Your task to perform on an android device: turn pop-ups on in chrome Image 0: 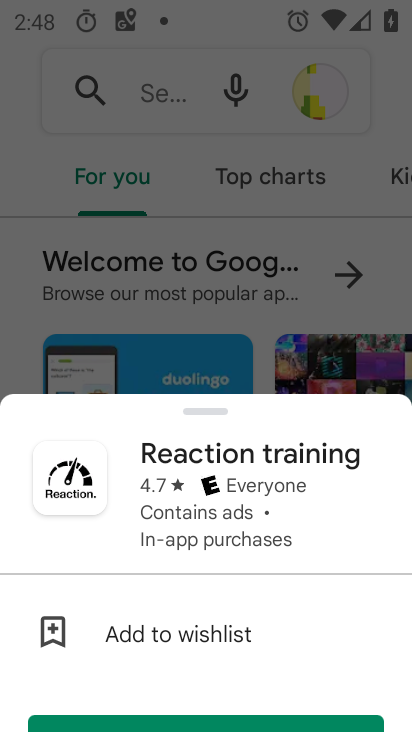
Step 0: press home button
Your task to perform on an android device: turn pop-ups on in chrome Image 1: 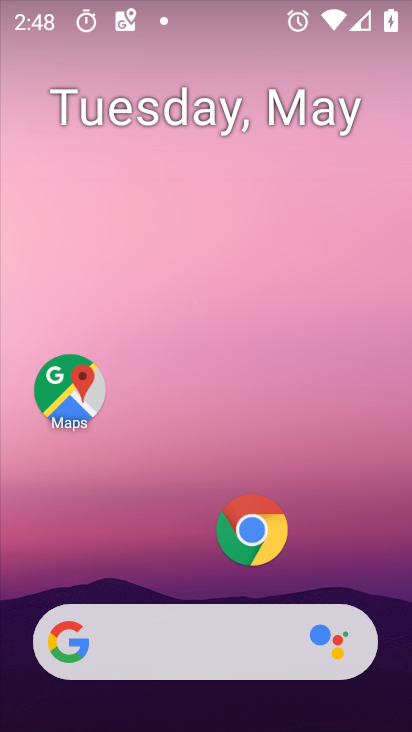
Step 1: drag from (222, 577) to (148, 5)
Your task to perform on an android device: turn pop-ups on in chrome Image 2: 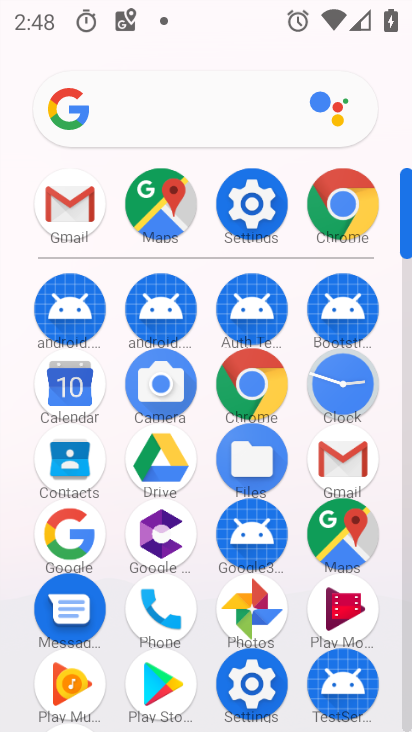
Step 2: click (365, 223)
Your task to perform on an android device: turn pop-ups on in chrome Image 3: 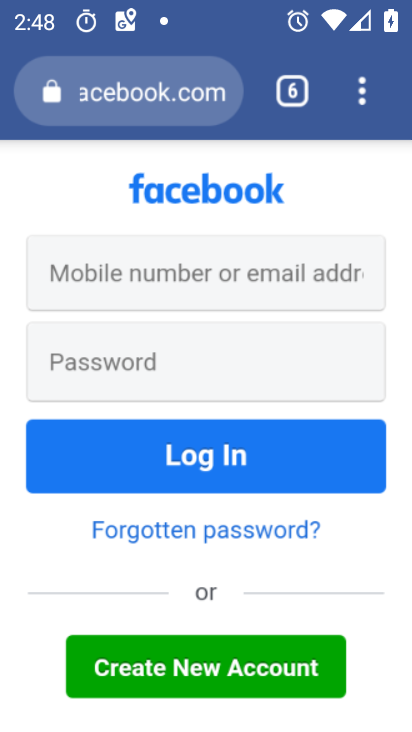
Step 3: click (362, 92)
Your task to perform on an android device: turn pop-ups on in chrome Image 4: 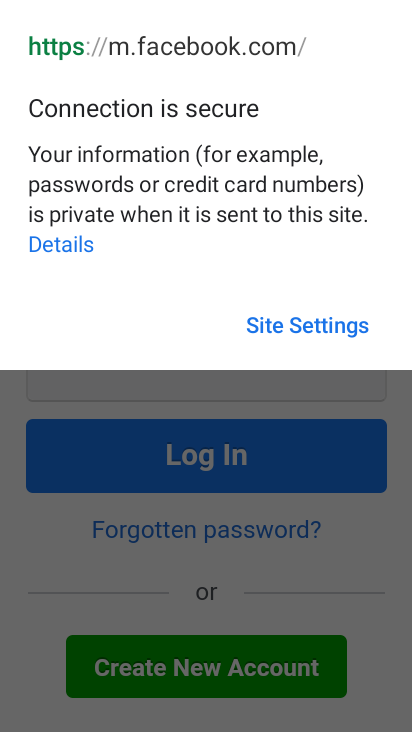
Step 4: click (350, 429)
Your task to perform on an android device: turn pop-ups on in chrome Image 5: 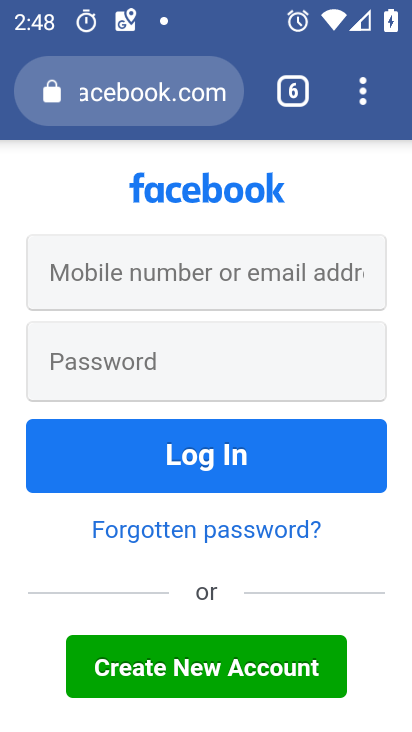
Step 5: click (359, 93)
Your task to perform on an android device: turn pop-ups on in chrome Image 6: 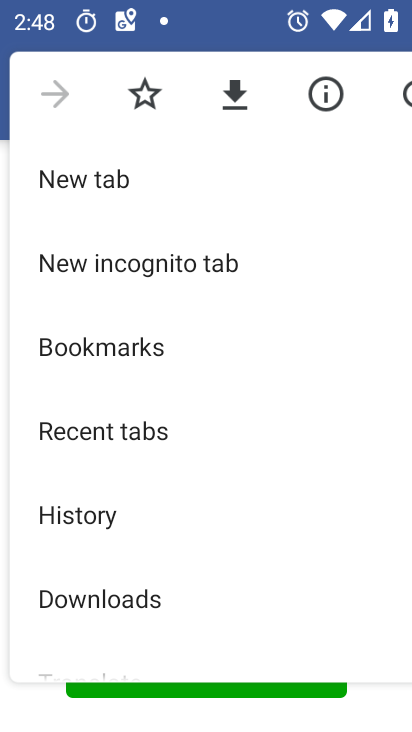
Step 6: drag from (257, 551) to (185, 145)
Your task to perform on an android device: turn pop-ups on in chrome Image 7: 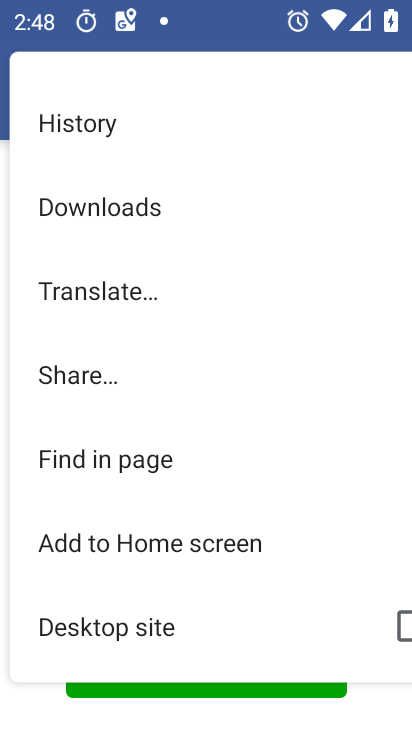
Step 7: drag from (133, 633) to (85, 130)
Your task to perform on an android device: turn pop-ups on in chrome Image 8: 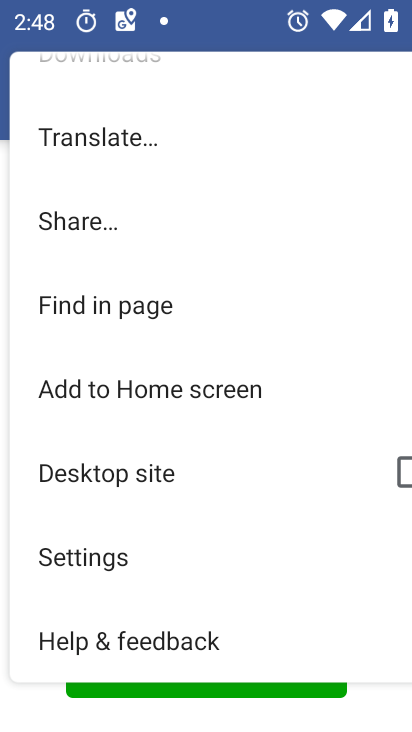
Step 8: click (91, 554)
Your task to perform on an android device: turn pop-ups on in chrome Image 9: 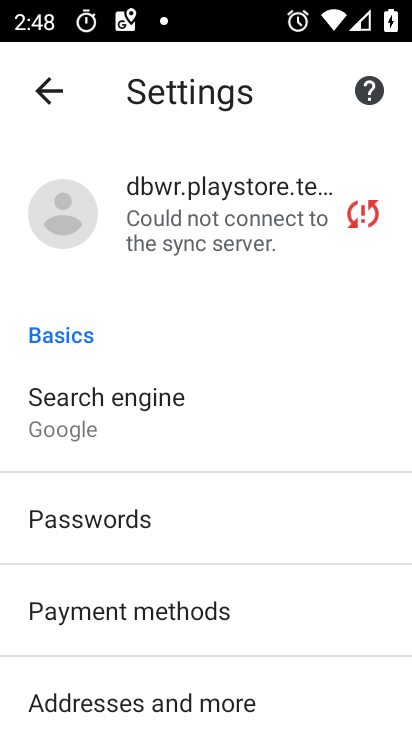
Step 9: drag from (143, 653) to (82, 95)
Your task to perform on an android device: turn pop-ups on in chrome Image 10: 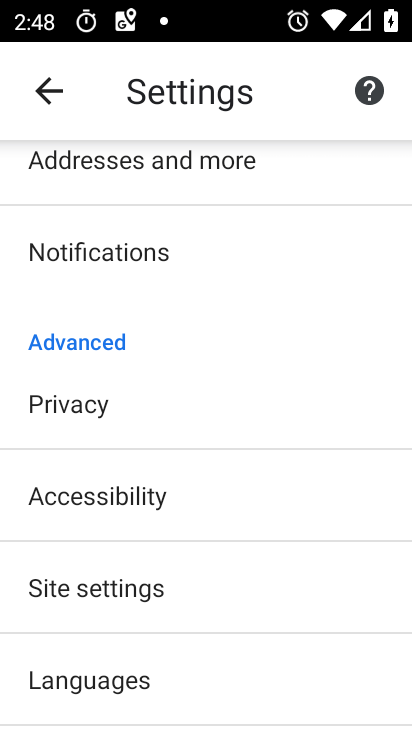
Step 10: click (139, 605)
Your task to perform on an android device: turn pop-ups on in chrome Image 11: 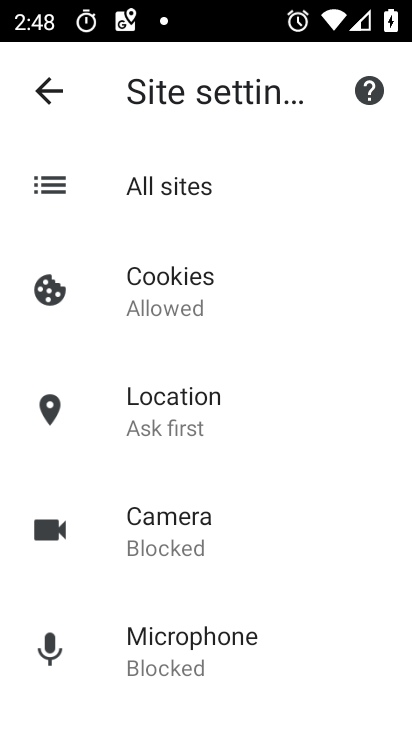
Step 11: drag from (139, 605) to (133, 158)
Your task to perform on an android device: turn pop-ups on in chrome Image 12: 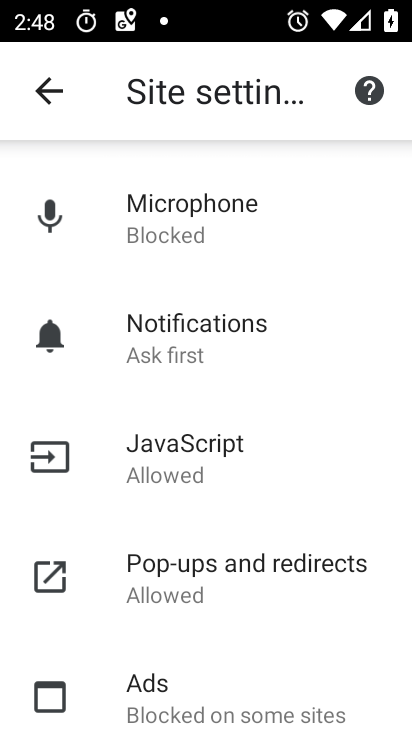
Step 12: drag from (228, 627) to (171, 216)
Your task to perform on an android device: turn pop-ups on in chrome Image 13: 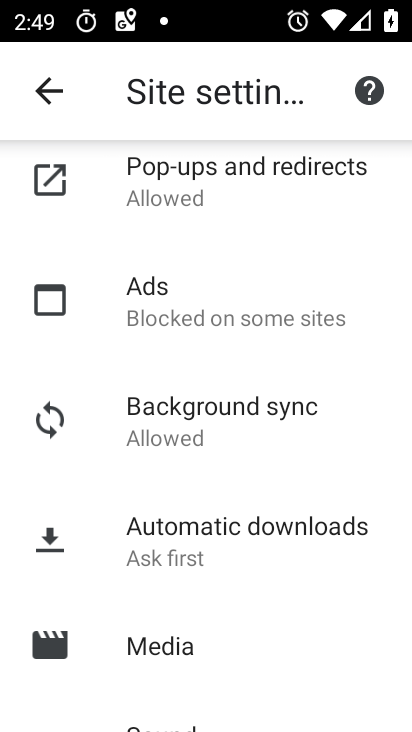
Step 13: drag from (206, 619) to (155, 197)
Your task to perform on an android device: turn pop-ups on in chrome Image 14: 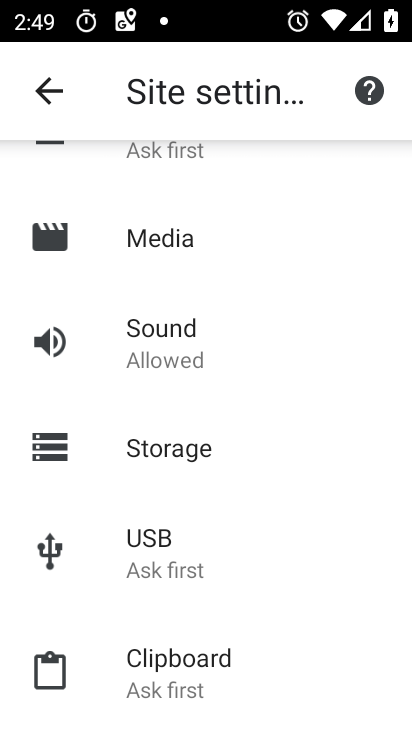
Step 14: drag from (176, 552) to (112, 74)
Your task to perform on an android device: turn pop-ups on in chrome Image 15: 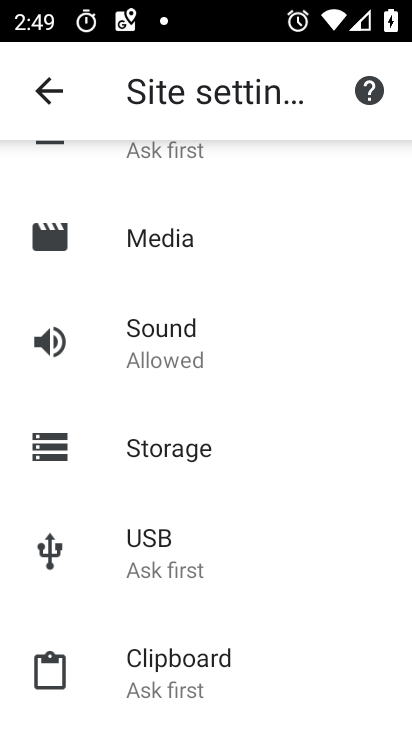
Step 15: drag from (222, 295) to (229, 680)
Your task to perform on an android device: turn pop-ups on in chrome Image 16: 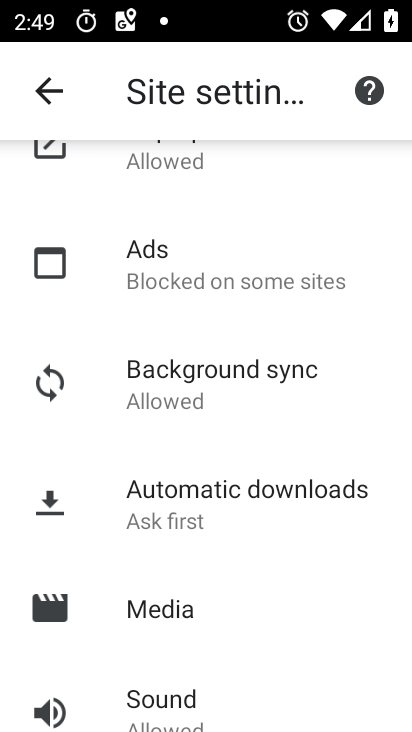
Step 16: drag from (229, 318) to (243, 436)
Your task to perform on an android device: turn pop-ups on in chrome Image 17: 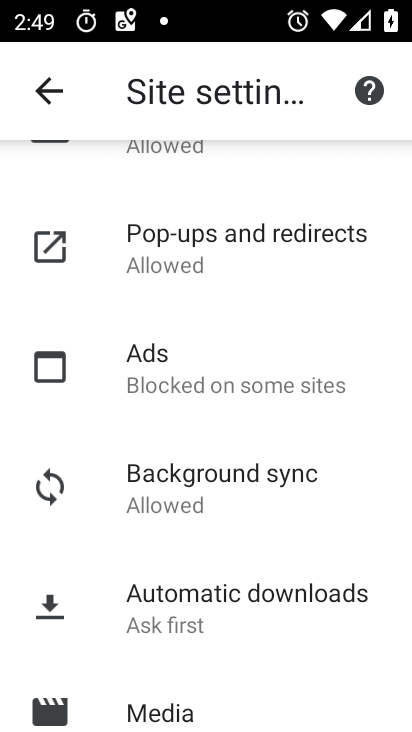
Step 17: click (234, 240)
Your task to perform on an android device: turn pop-ups on in chrome Image 18: 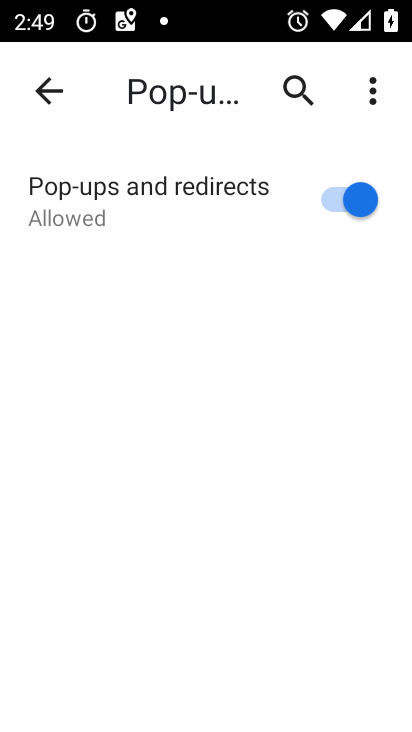
Step 18: task complete